Your task to perform on an android device: Open notification settings Image 0: 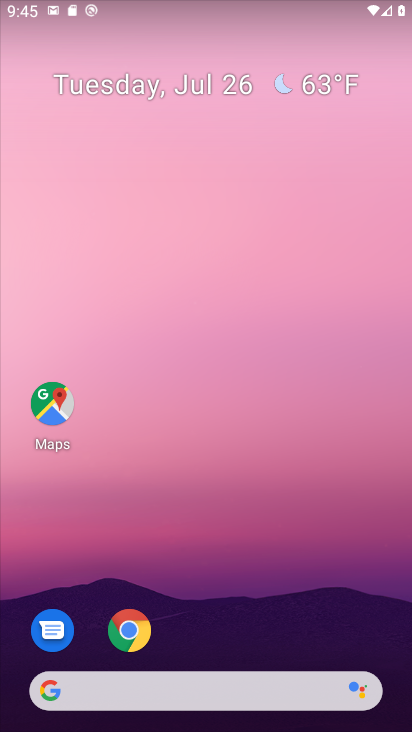
Step 0: drag from (215, 656) to (239, 8)
Your task to perform on an android device: Open notification settings Image 1: 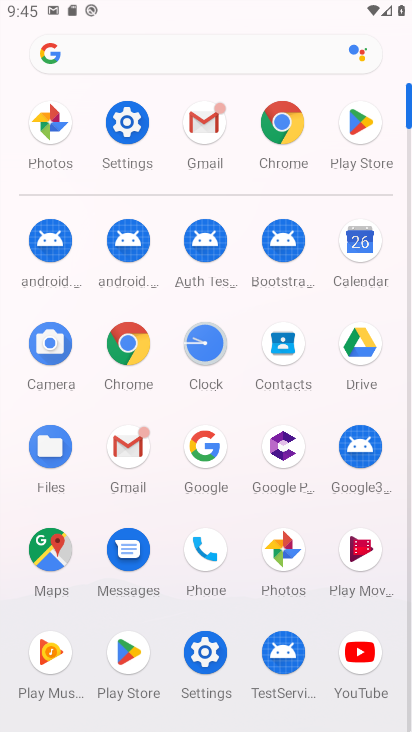
Step 1: click (125, 112)
Your task to perform on an android device: Open notification settings Image 2: 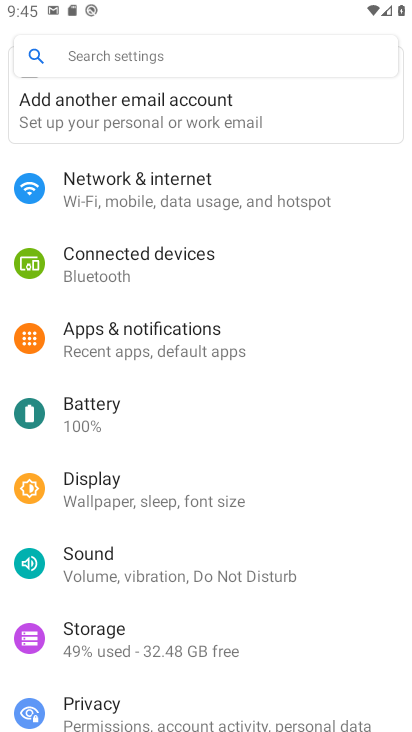
Step 2: click (237, 332)
Your task to perform on an android device: Open notification settings Image 3: 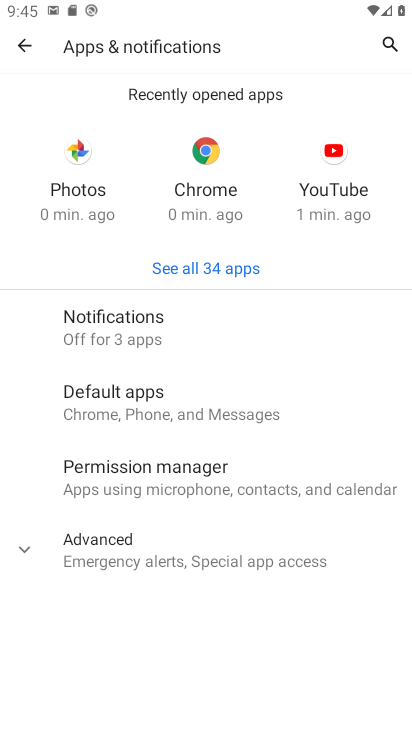
Step 3: click (175, 326)
Your task to perform on an android device: Open notification settings Image 4: 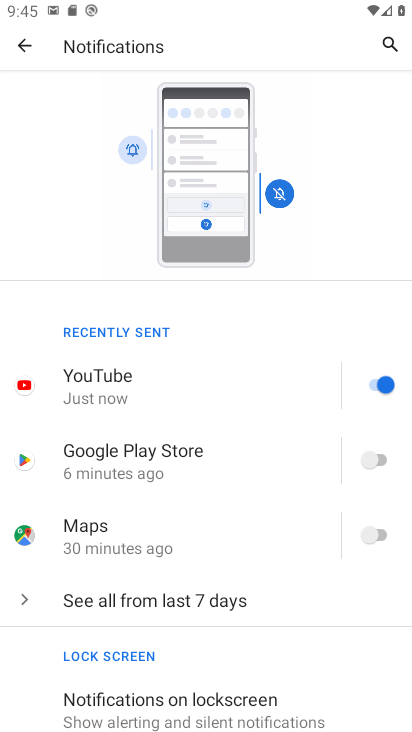
Step 4: drag from (225, 644) to (213, 137)
Your task to perform on an android device: Open notification settings Image 5: 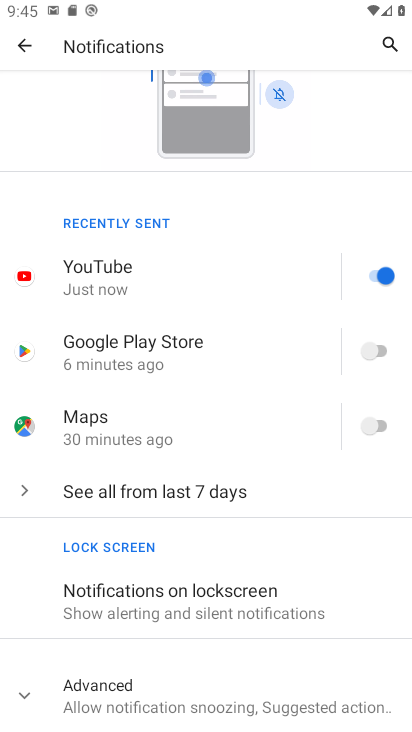
Step 5: click (18, 695)
Your task to perform on an android device: Open notification settings Image 6: 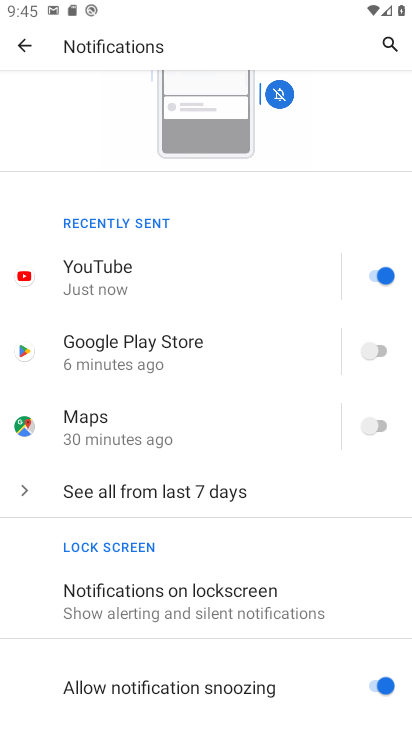
Step 6: task complete